Your task to perform on an android device: turn on improve location accuracy Image 0: 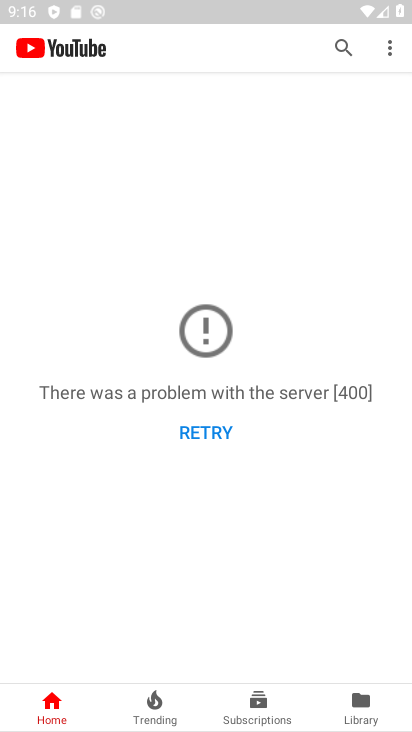
Step 0: task complete